Your task to perform on an android device: turn on sleep mode Image 0: 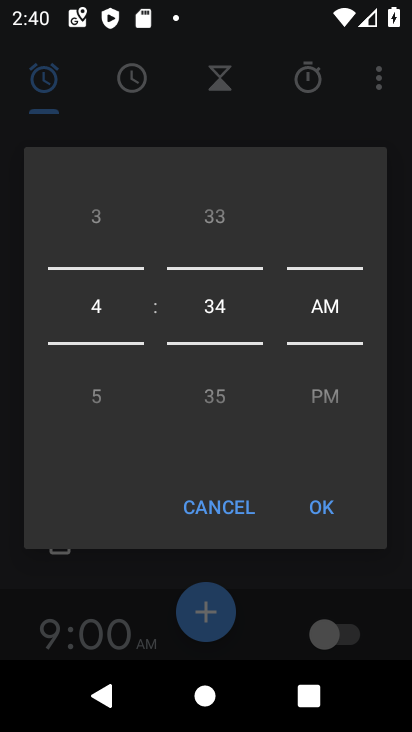
Step 0: press home button
Your task to perform on an android device: turn on sleep mode Image 1: 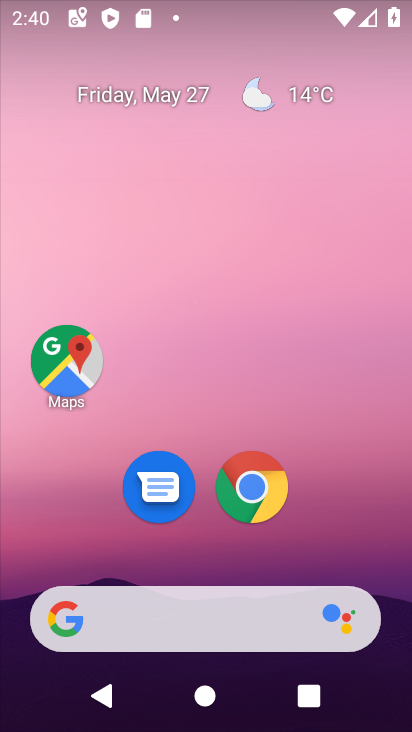
Step 1: drag from (393, 507) to (348, 13)
Your task to perform on an android device: turn on sleep mode Image 2: 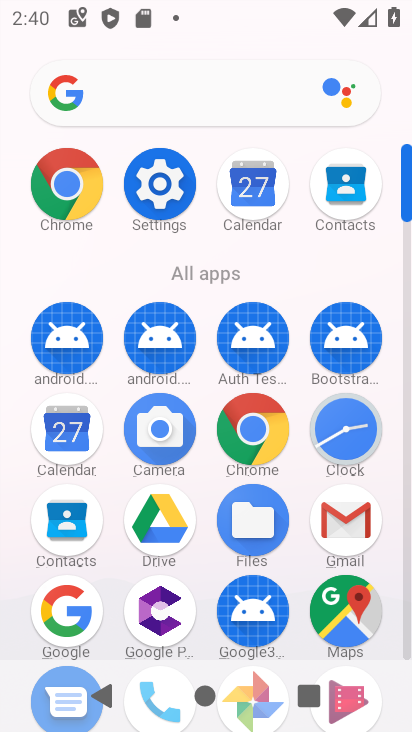
Step 2: click (153, 176)
Your task to perform on an android device: turn on sleep mode Image 3: 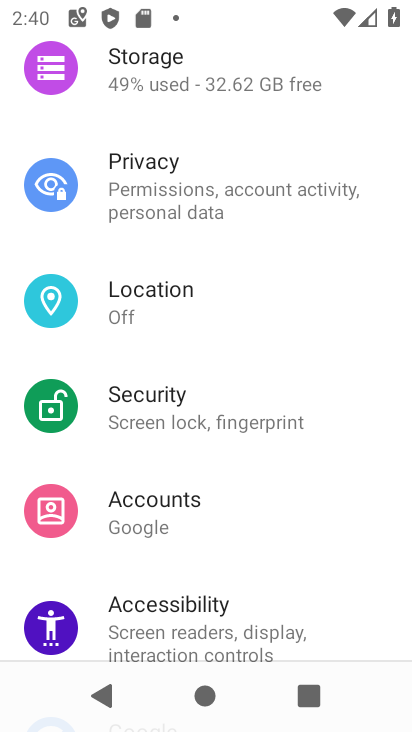
Step 3: drag from (153, 176) to (151, 596)
Your task to perform on an android device: turn on sleep mode Image 4: 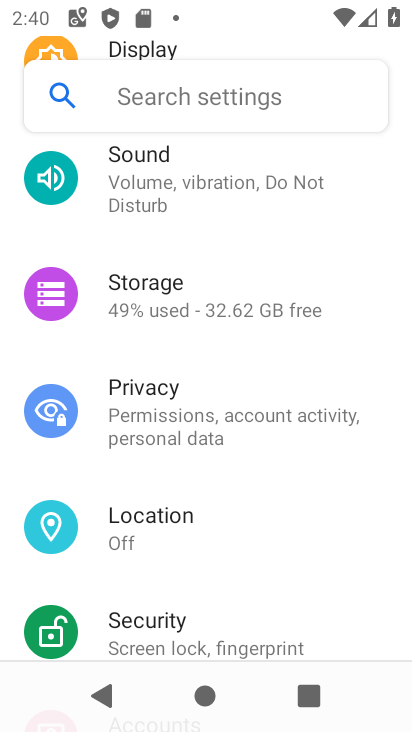
Step 4: drag from (204, 202) to (184, 458)
Your task to perform on an android device: turn on sleep mode Image 5: 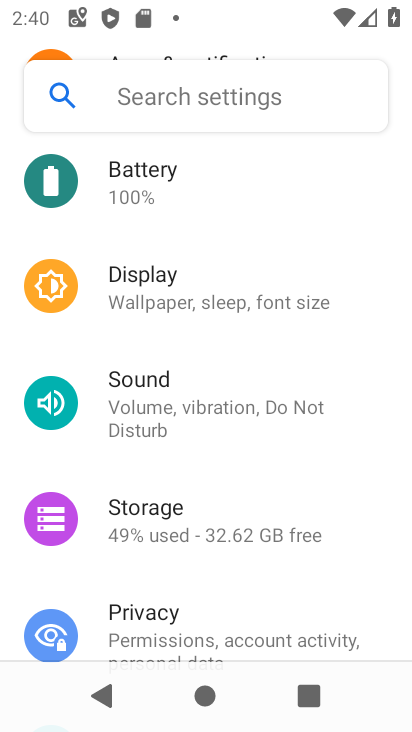
Step 5: click (180, 327)
Your task to perform on an android device: turn on sleep mode Image 6: 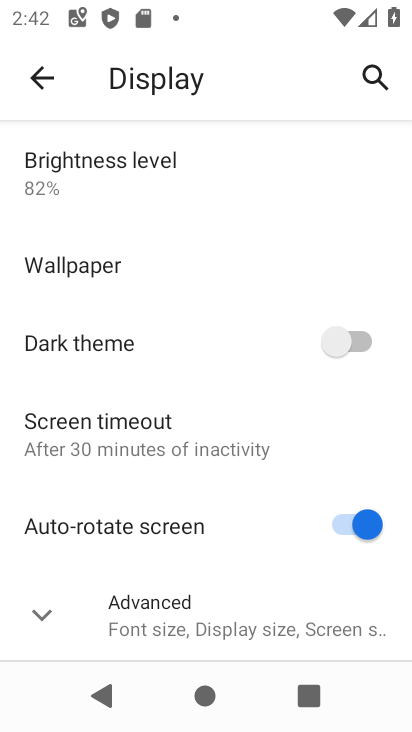
Step 6: task complete